Your task to perform on an android device: Open the calendar app, open the side menu, and click the "Day" option Image 0: 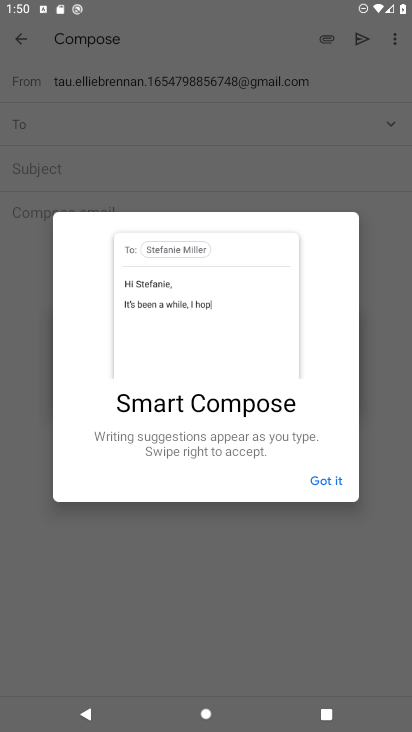
Step 0: press home button
Your task to perform on an android device: Open the calendar app, open the side menu, and click the "Day" option Image 1: 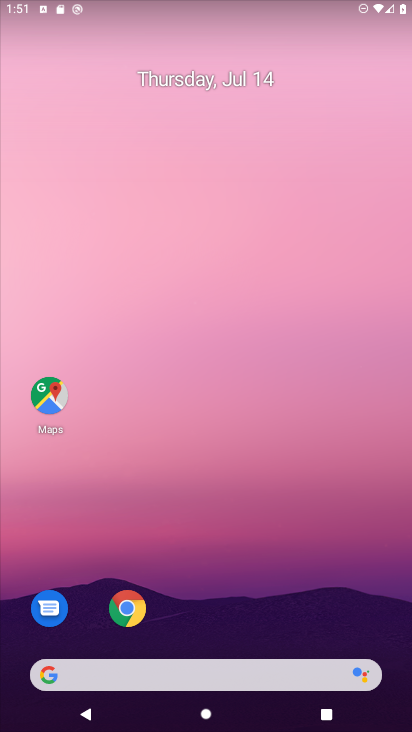
Step 1: drag from (357, 608) to (314, 177)
Your task to perform on an android device: Open the calendar app, open the side menu, and click the "Day" option Image 2: 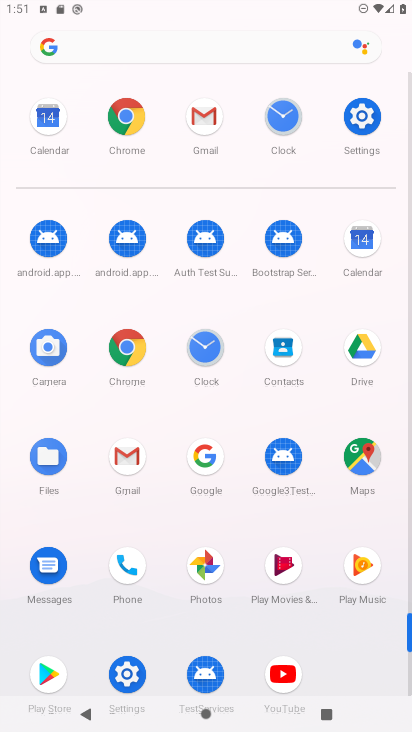
Step 2: click (361, 237)
Your task to perform on an android device: Open the calendar app, open the side menu, and click the "Day" option Image 3: 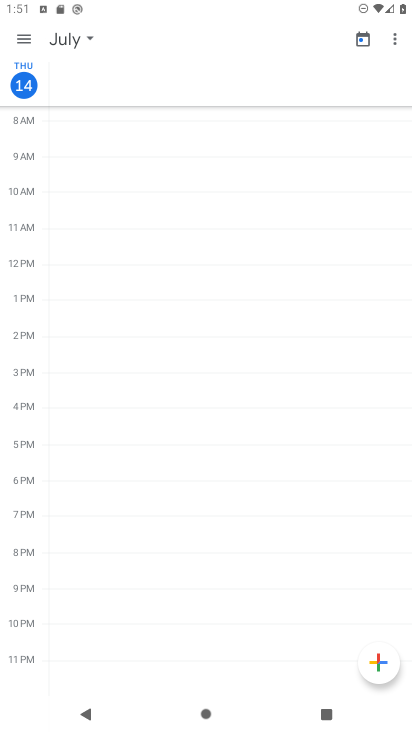
Step 3: click (19, 43)
Your task to perform on an android device: Open the calendar app, open the side menu, and click the "Day" option Image 4: 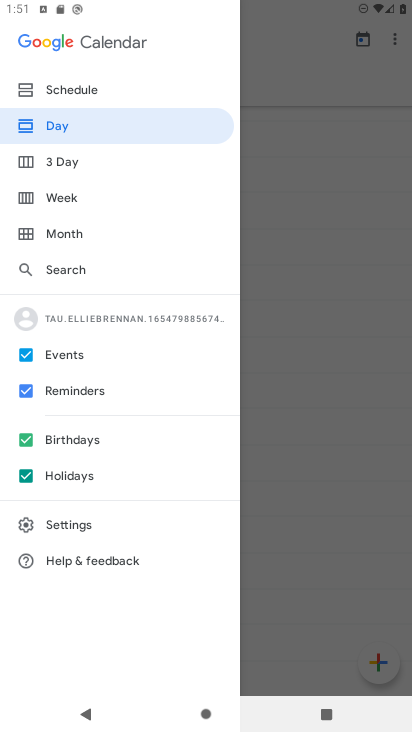
Step 4: click (68, 131)
Your task to perform on an android device: Open the calendar app, open the side menu, and click the "Day" option Image 5: 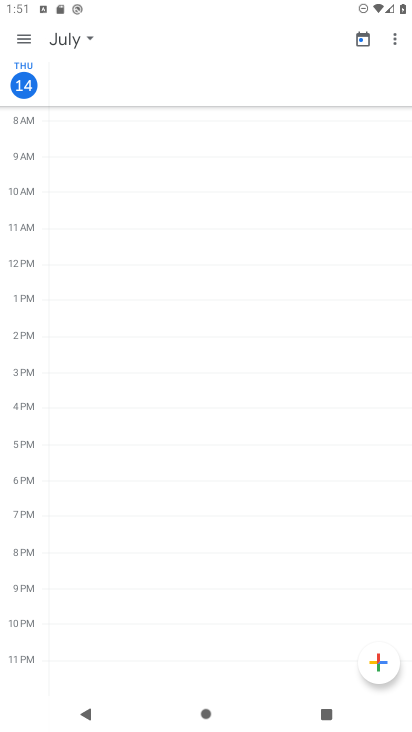
Step 5: task complete